Your task to perform on an android device: Go to Google Image 0: 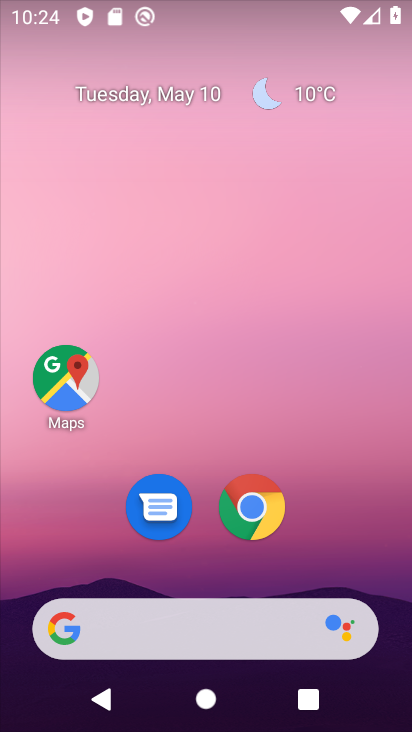
Step 0: drag from (229, 729) to (227, 173)
Your task to perform on an android device: Go to Google Image 1: 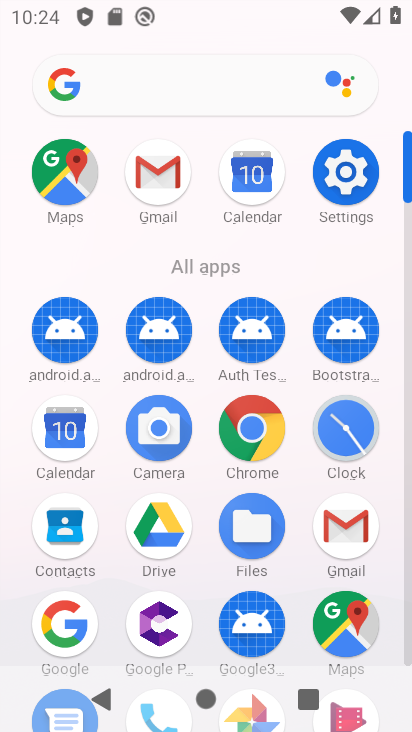
Step 1: click (60, 626)
Your task to perform on an android device: Go to Google Image 2: 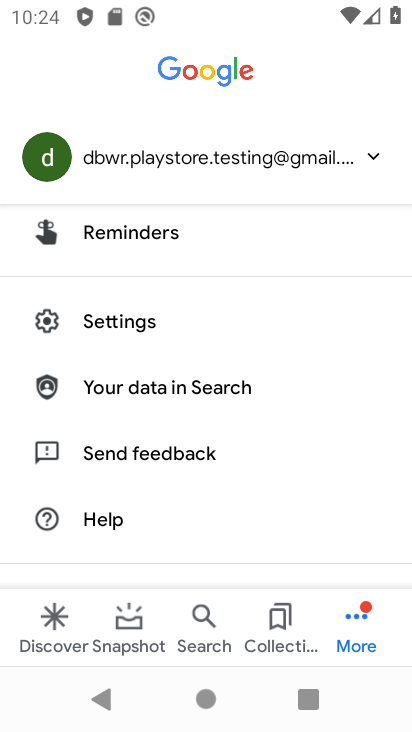
Step 2: task complete